Your task to perform on an android device: read, delete, or share a saved page in the chrome app Image 0: 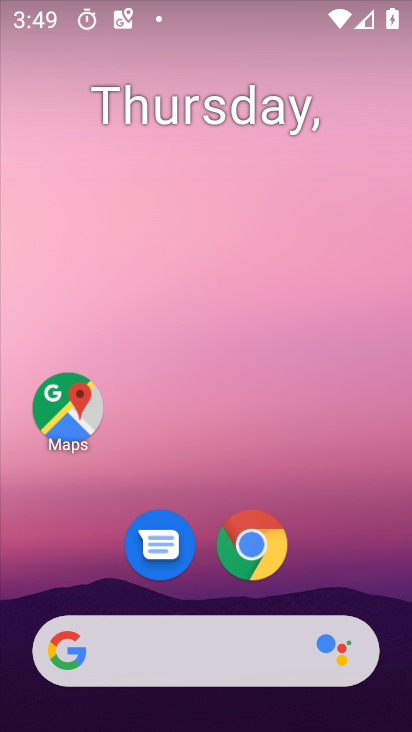
Step 0: click (249, 546)
Your task to perform on an android device: read, delete, or share a saved page in the chrome app Image 1: 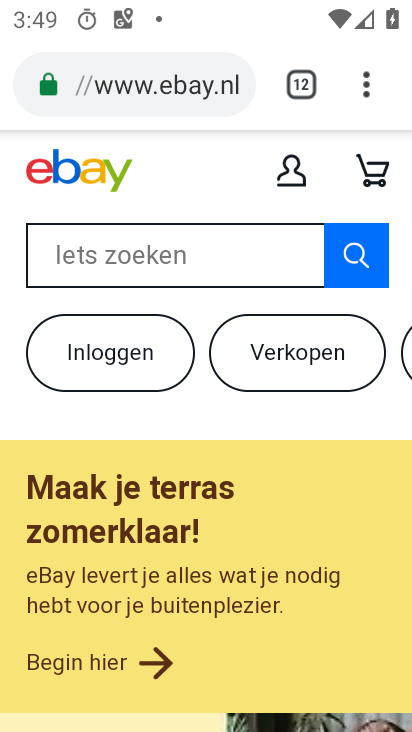
Step 1: click (368, 89)
Your task to perform on an android device: read, delete, or share a saved page in the chrome app Image 2: 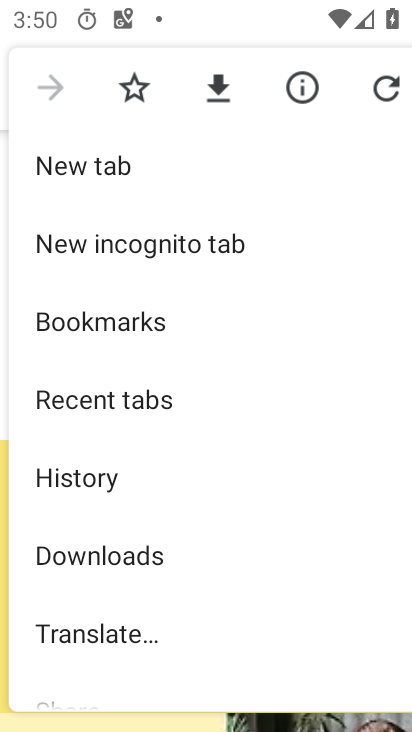
Step 2: drag from (145, 648) to (191, 284)
Your task to perform on an android device: read, delete, or share a saved page in the chrome app Image 3: 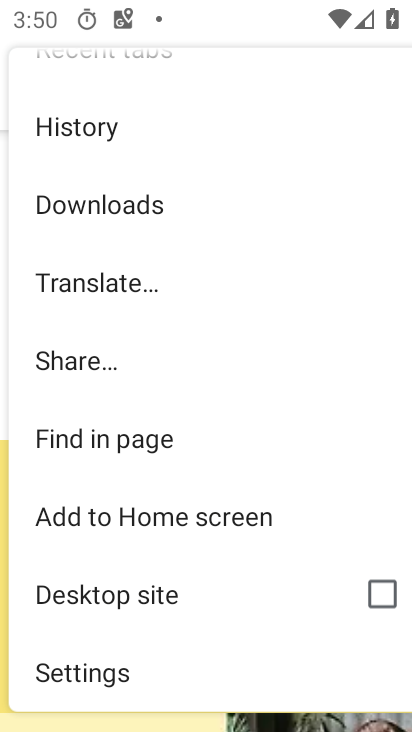
Step 3: drag from (118, 630) to (125, 284)
Your task to perform on an android device: read, delete, or share a saved page in the chrome app Image 4: 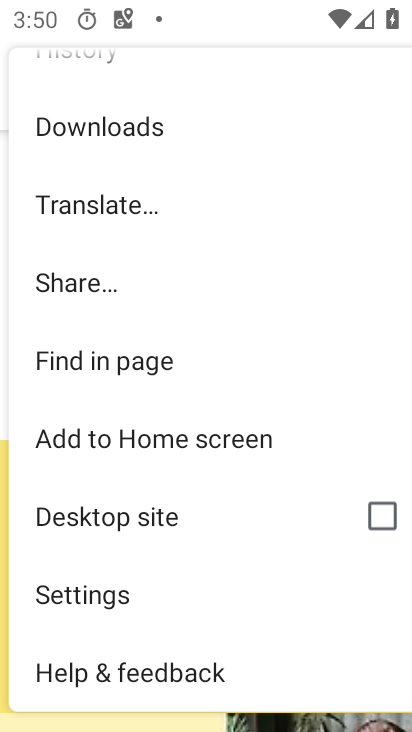
Step 4: click (122, 120)
Your task to perform on an android device: read, delete, or share a saved page in the chrome app Image 5: 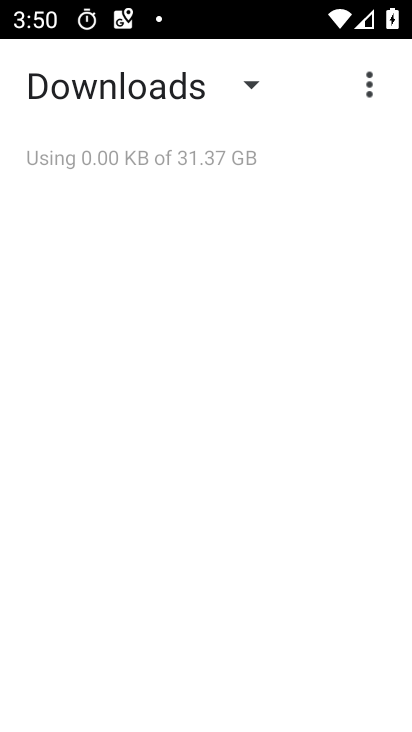
Step 5: click (254, 81)
Your task to perform on an android device: read, delete, or share a saved page in the chrome app Image 6: 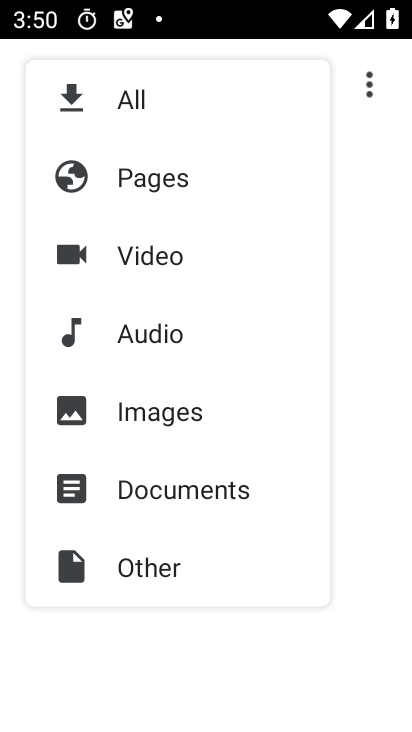
Step 6: click (155, 174)
Your task to perform on an android device: read, delete, or share a saved page in the chrome app Image 7: 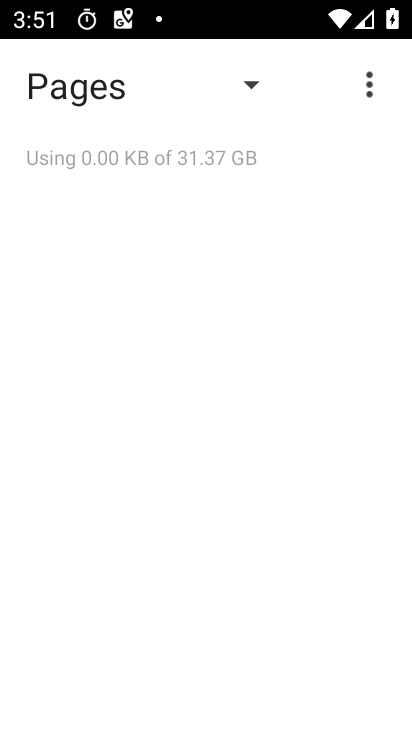
Step 7: task complete